Your task to perform on an android device: toggle translation in the chrome app Image 0: 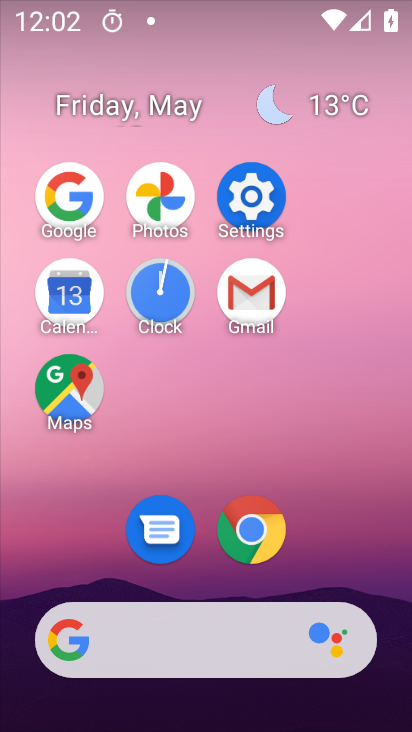
Step 0: click (256, 524)
Your task to perform on an android device: toggle translation in the chrome app Image 1: 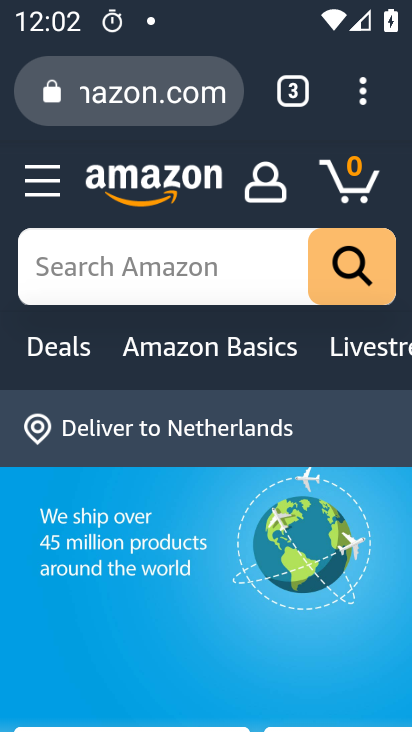
Step 1: click (379, 90)
Your task to perform on an android device: toggle translation in the chrome app Image 2: 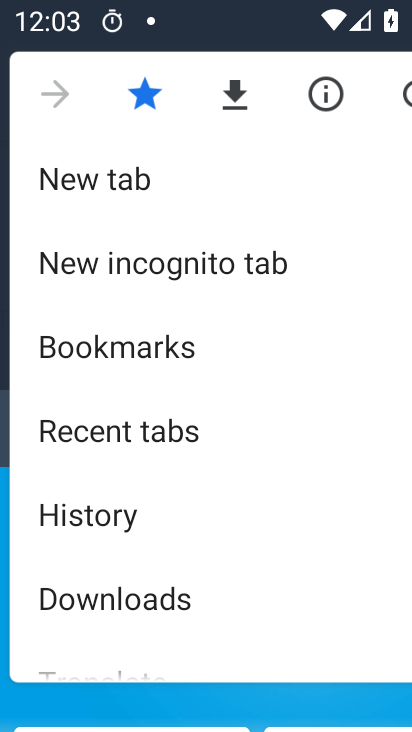
Step 2: drag from (288, 626) to (355, 154)
Your task to perform on an android device: toggle translation in the chrome app Image 3: 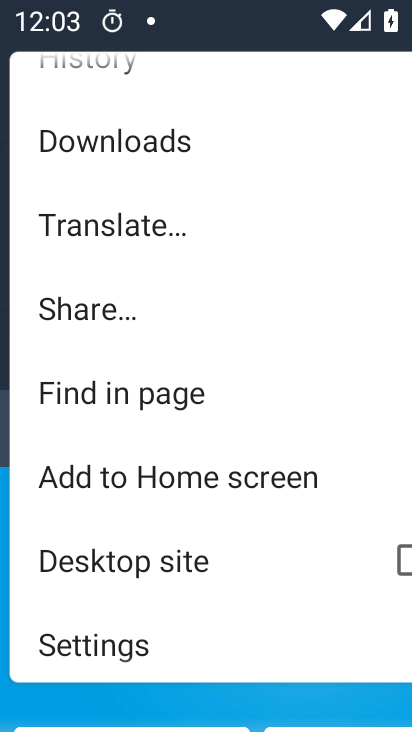
Step 3: click (219, 643)
Your task to perform on an android device: toggle translation in the chrome app Image 4: 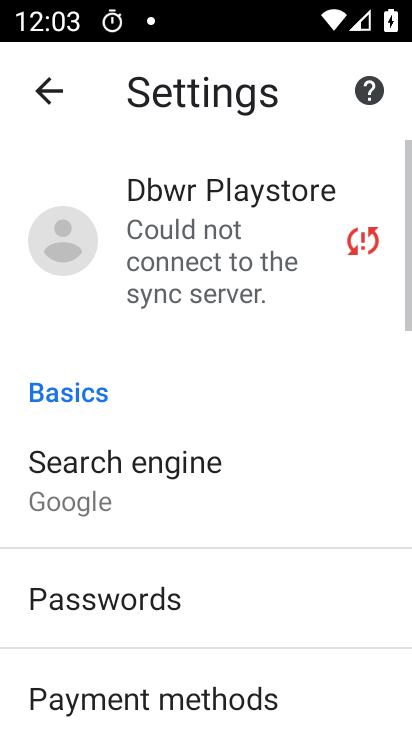
Step 4: drag from (219, 643) to (265, 249)
Your task to perform on an android device: toggle translation in the chrome app Image 5: 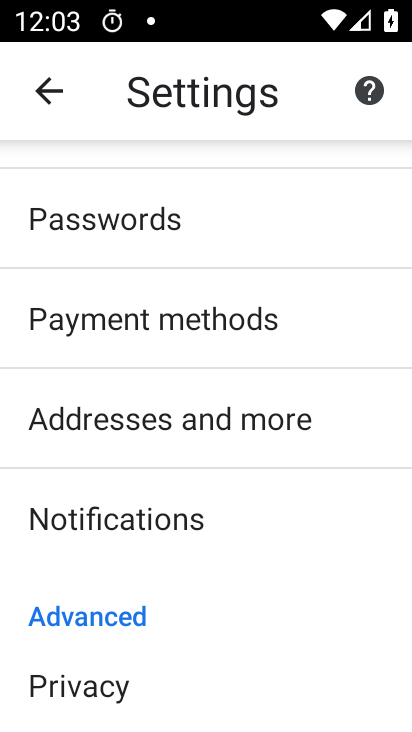
Step 5: drag from (222, 562) to (250, 174)
Your task to perform on an android device: toggle translation in the chrome app Image 6: 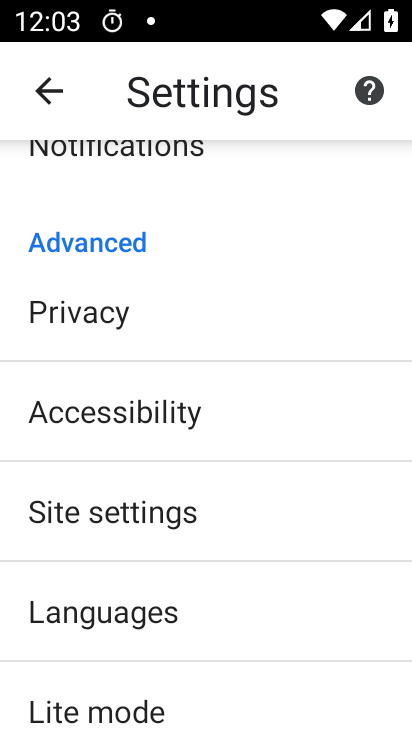
Step 6: drag from (203, 557) to (252, 203)
Your task to perform on an android device: toggle translation in the chrome app Image 7: 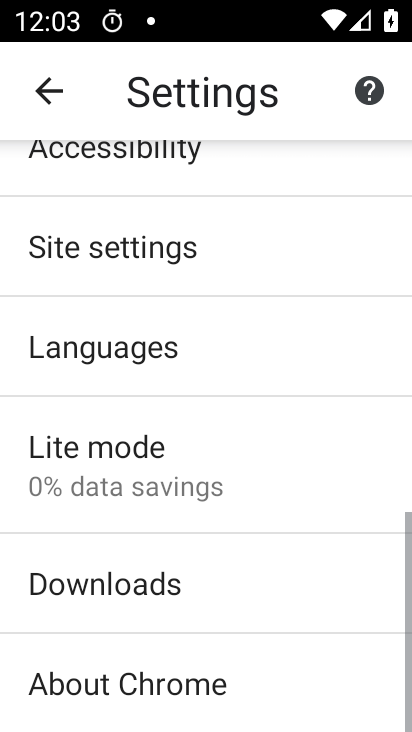
Step 7: click (225, 330)
Your task to perform on an android device: toggle translation in the chrome app Image 8: 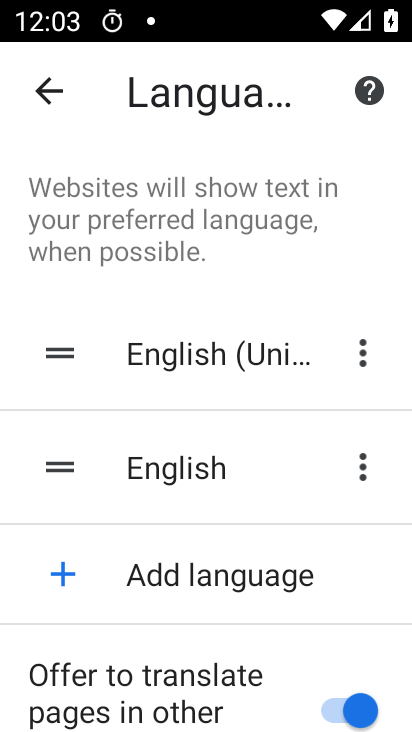
Step 8: click (370, 708)
Your task to perform on an android device: toggle translation in the chrome app Image 9: 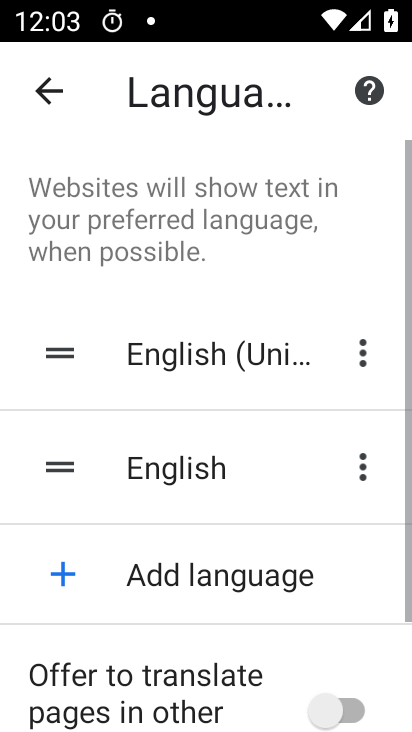
Step 9: task complete